Your task to perform on an android device: Open the map Image 0: 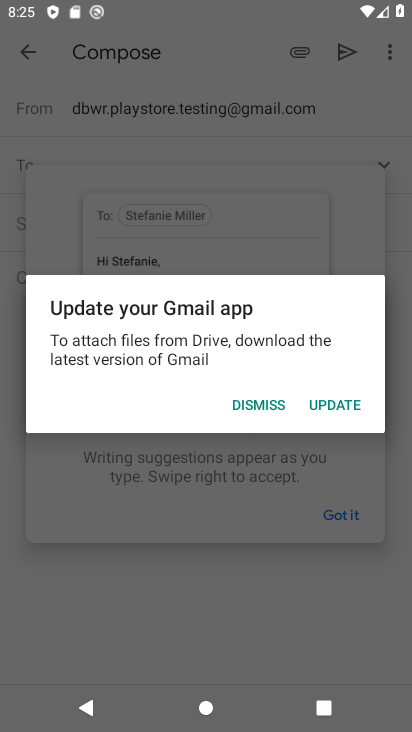
Step 0: press home button
Your task to perform on an android device: Open the map Image 1: 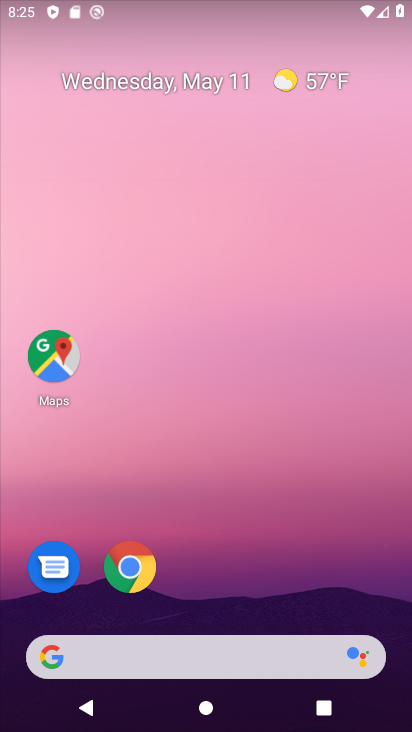
Step 1: click (63, 347)
Your task to perform on an android device: Open the map Image 2: 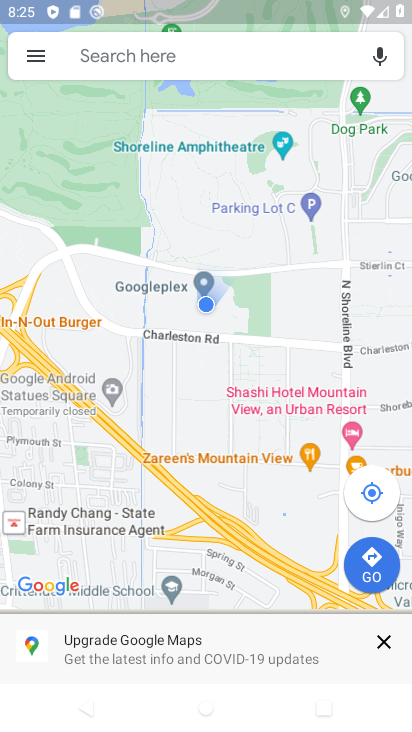
Step 2: task complete